Your task to perform on an android device: Open Google Chrome and click the shortcut for Amazon.com Image 0: 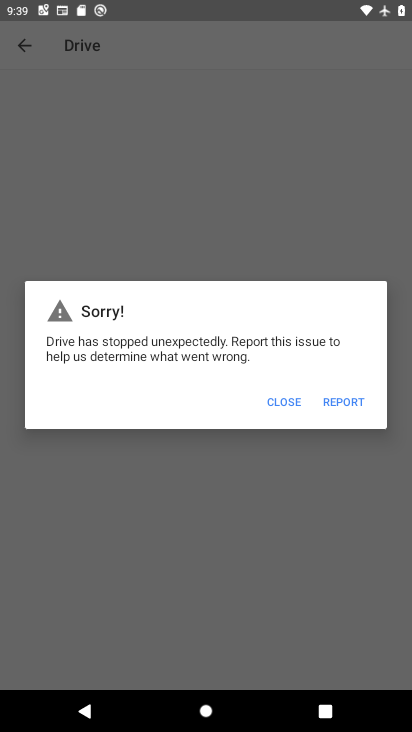
Step 0: press home button
Your task to perform on an android device: Open Google Chrome and click the shortcut for Amazon.com Image 1: 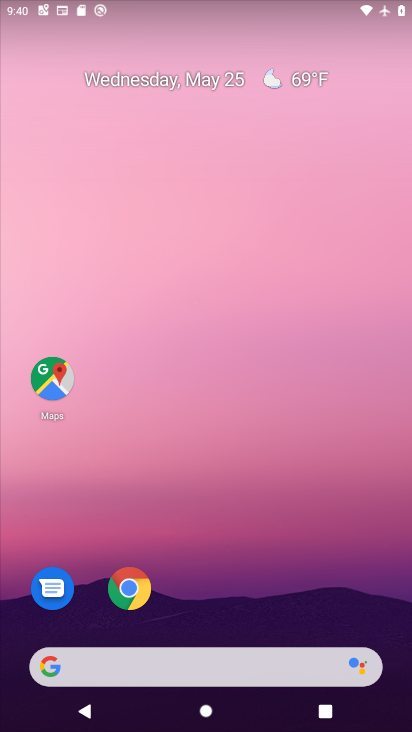
Step 1: drag from (382, 628) to (378, 205)
Your task to perform on an android device: Open Google Chrome and click the shortcut for Amazon.com Image 2: 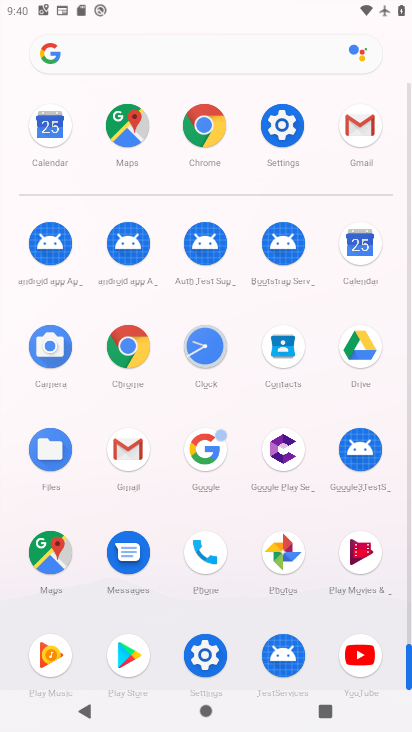
Step 2: click (147, 340)
Your task to perform on an android device: Open Google Chrome and click the shortcut for Amazon.com Image 3: 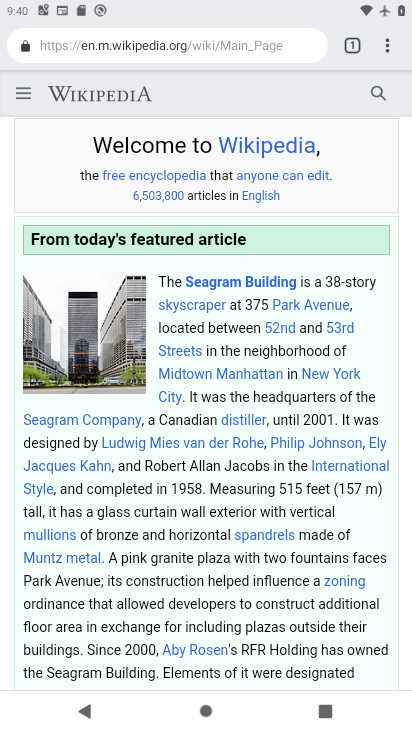
Step 3: press back button
Your task to perform on an android device: Open Google Chrome and click the shortcut for Amazon.com Image 4: 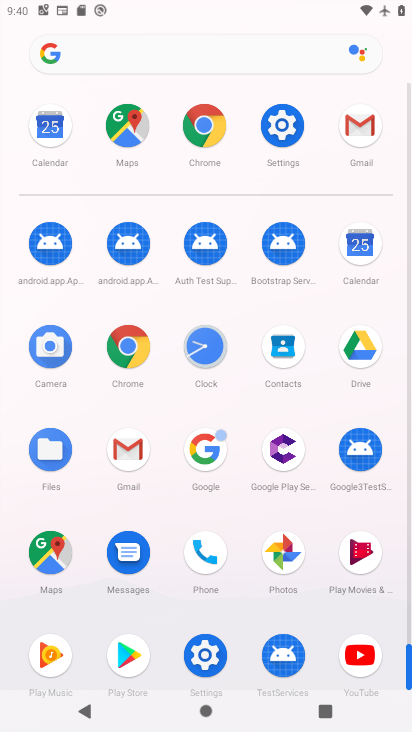
Step 4: click (133, 354)
Your task to perform on an android device: Open Google Chrome and click the shortcut for Amazon.com Image 5: 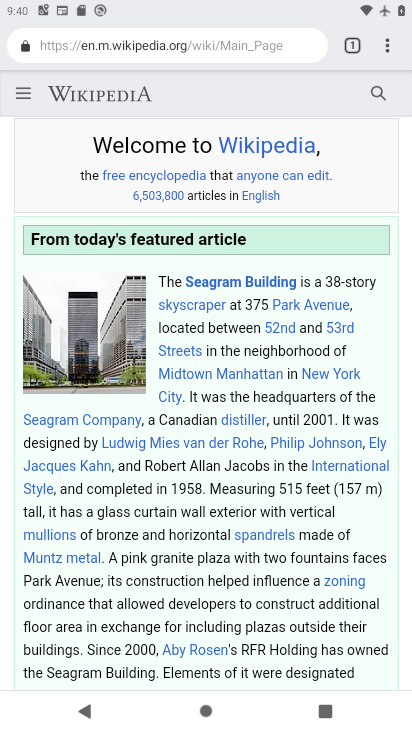
Step 5: press back button
Your task to perform on an android device: Open Google Chrome and click the shortcut for Amazon.com Image 6: 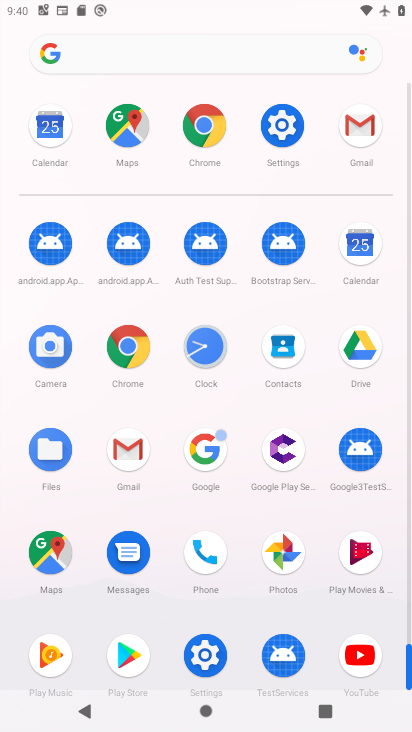
Step 6: click (137, 361)
Your task to perform on an android device: Open Google Chrome and click the shortcut for Amazon.com Image 7: 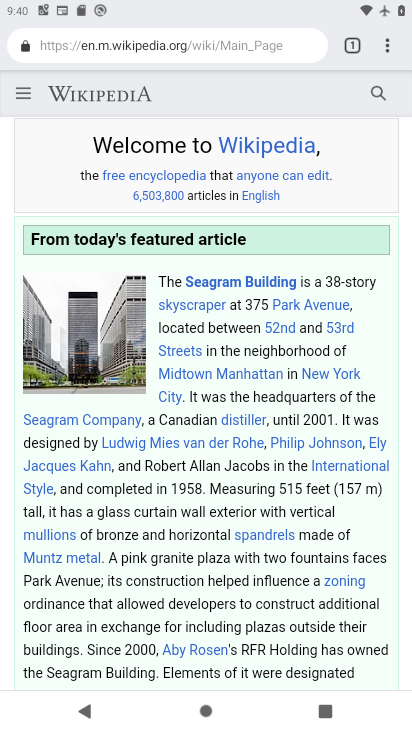
Step 7: press back button
Your task to perform on an android device: Open Google Chrome and click the shortcut for Amazon.com Image 8: 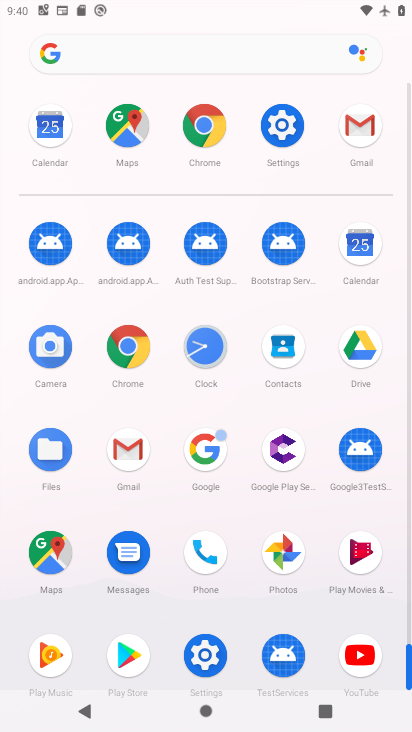
Step 8: click (118, 365)
Your task to perform on an android device: Open Google Chrome and click the shortcut for Amazon.com Image 9: 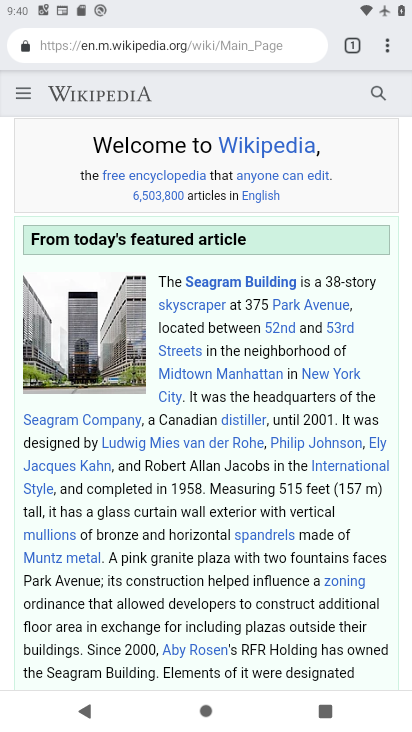
Step 9: click (289, 61)
Your task to perform on an android device: Open Google Chrome and click the shortcut for Amazon.com Image 10: 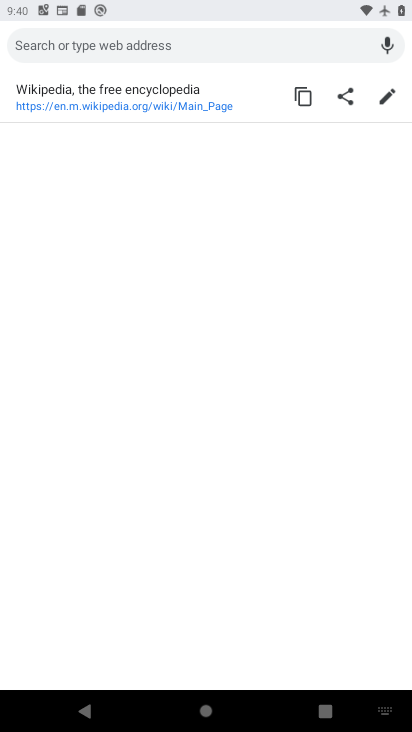
Step 10: type "amazon"
Your task to perform on an android device: Open Google Chrome and click the shortcut for Amazon.com Image 11: 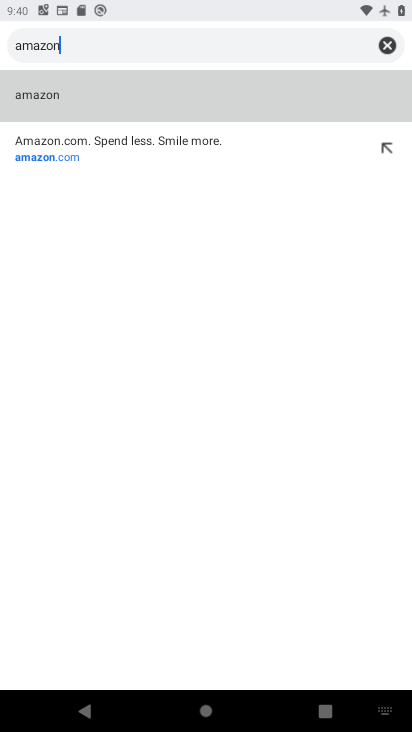
Step 11: click (157, 144)
Your task to perform on an android device: Open Google Chrome and click the shortcut for Amazon.com Image 12: 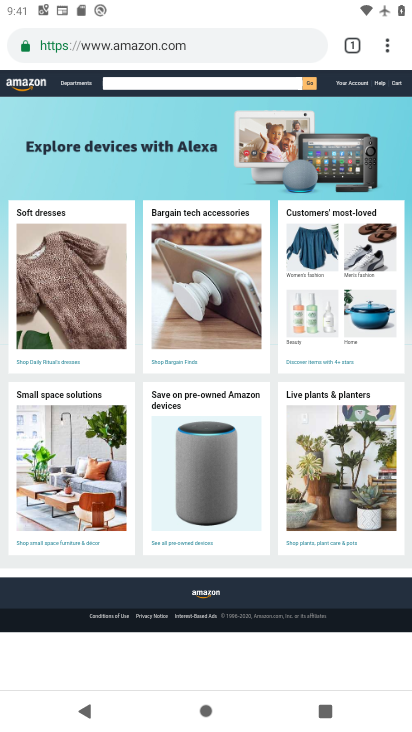
Step 12: task complete